Your task to perform on an android device: change timer sound Image 0: 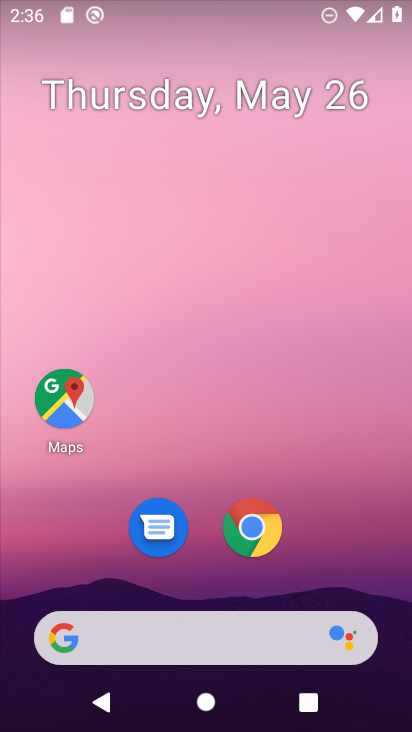
Step 0: drag from (199, 563) to (243, 105)
Your task to perform on an android device: change timer sound Image 1: 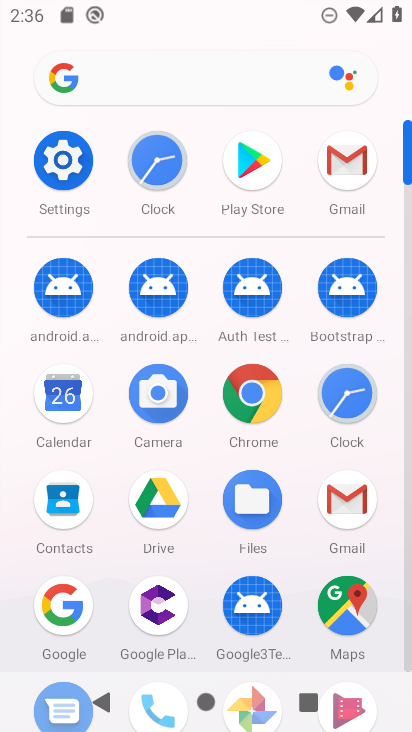
Step 1: click (338, 379)
Your task to perform on an android device: change timer sound Image 2: 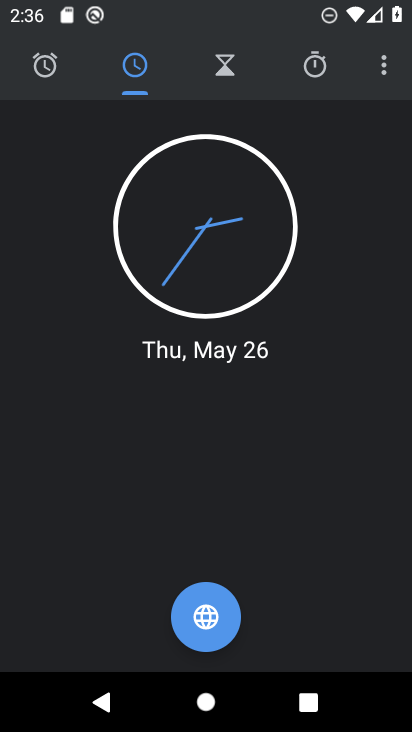
Step 2: click (360, 69)
Your task to perform on an android device: change timer sound Image 3: 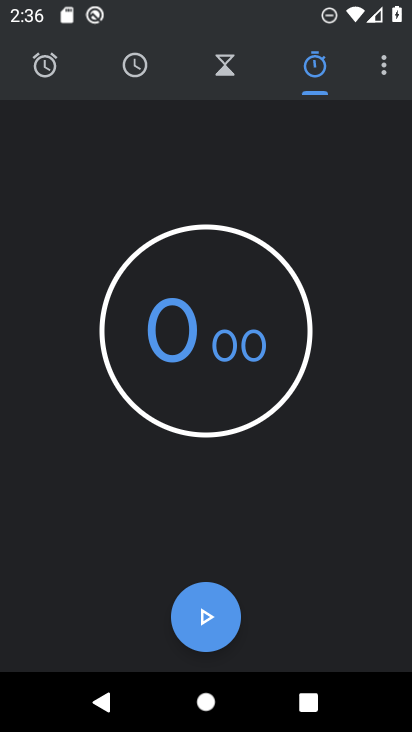
Step 3: click (382, 67)
Your task to perform on an android device: change timer sound Image 4: 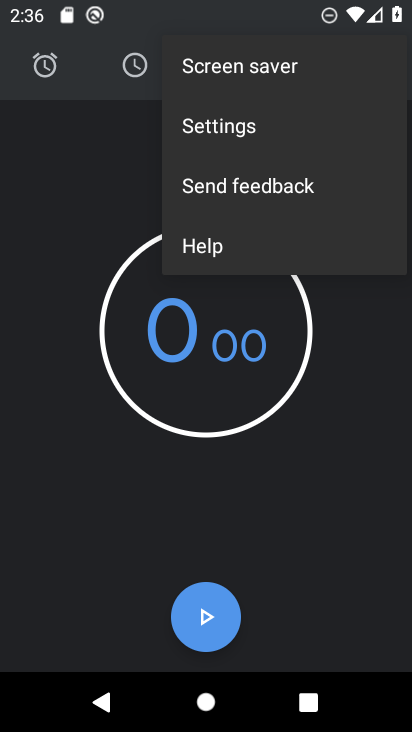
Step 4: click (230, 135)
Your task to perform on an android device: change timer sound Image 5: 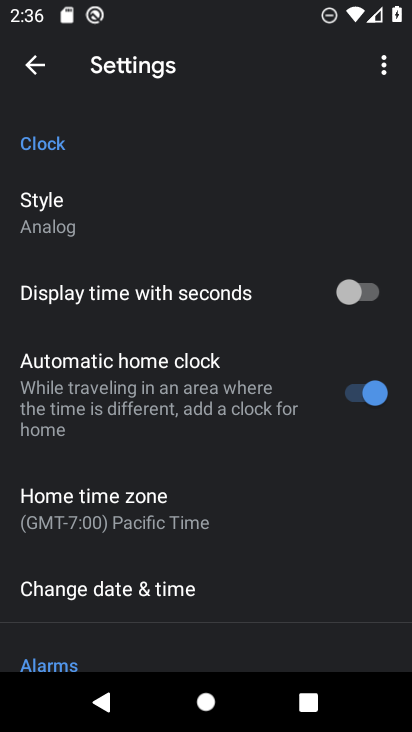
Step 5: drag from (119, 610) to (201, 59)
Your task to perform on an android device: change timer sound Image 6: 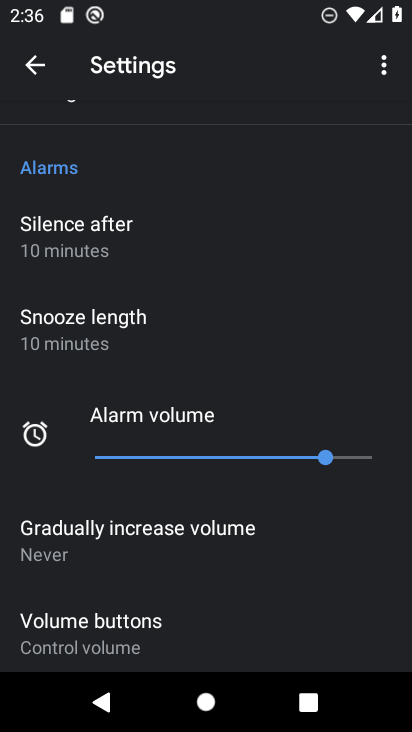
Step 6: drag from (159, 582) to (213, 159)
Your task to perform on an android device: change timer sound Image 7: 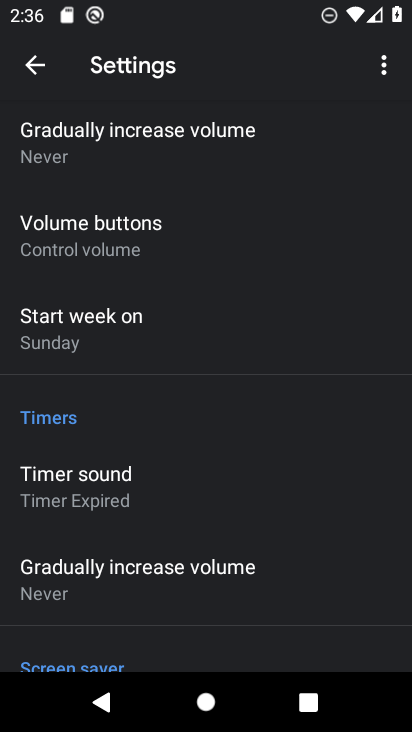
Step 7: click (47, 456)
Your task to perform on an android device: change timer sound Image 8: 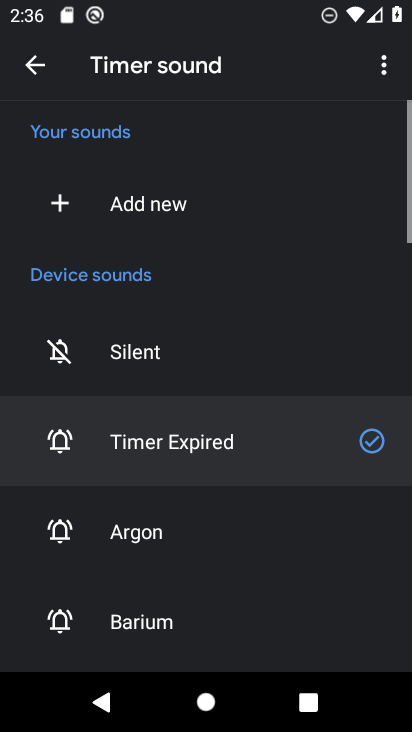
Step 8: click (123, 534)
Your task to perform on an android device: change timer sound Image 9: 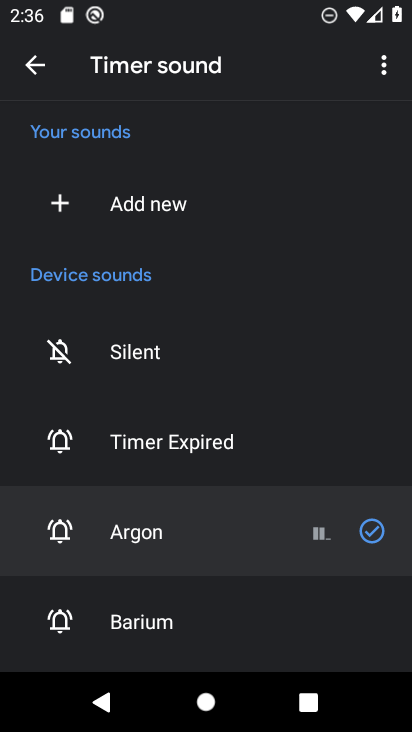
Step 9: task complete